Your task to perform on an android device: Clear the shopping cart on target. Add razer blade to the cart on target, then select checkout. Image 0: 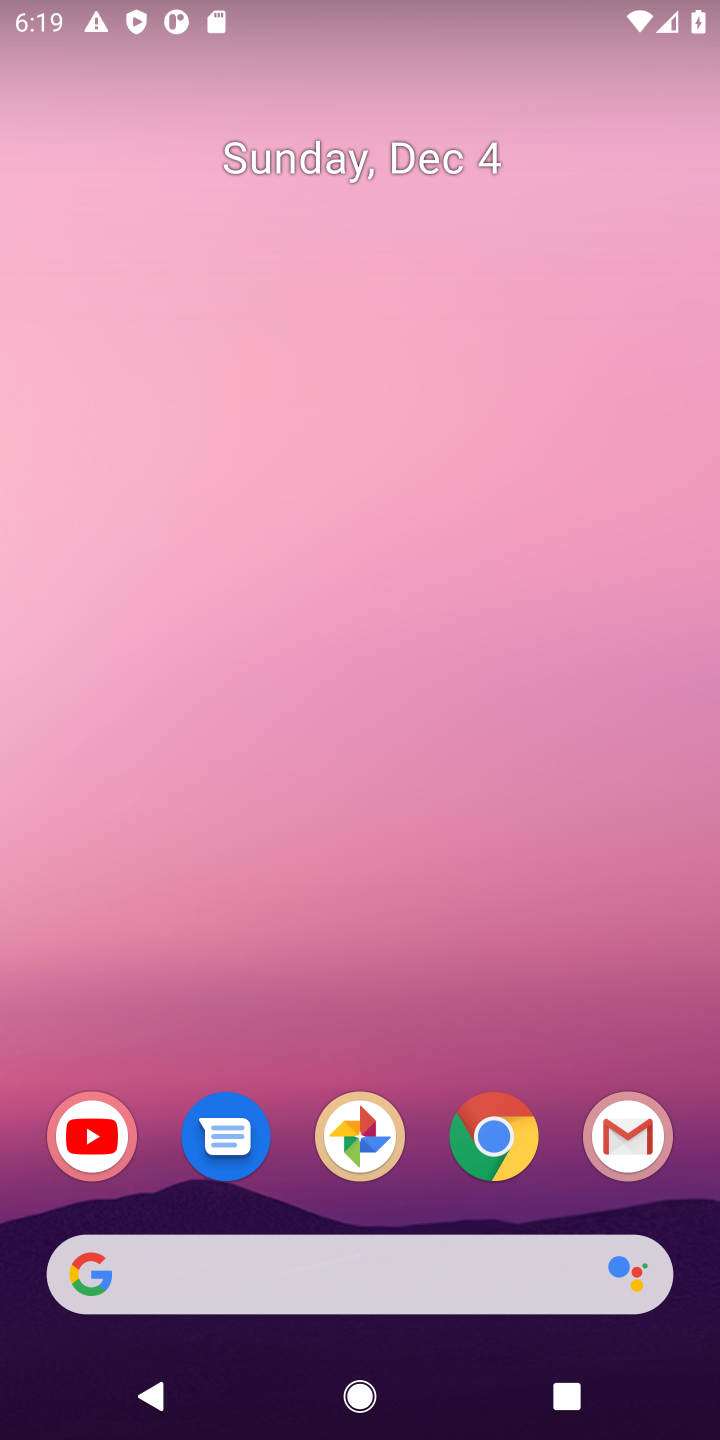
Step 0: click (508, 1145)
Your task to perform on an android device: Clear the shopping cart on target. Add razer blade to the cart on target, then select checkout. Image 1: 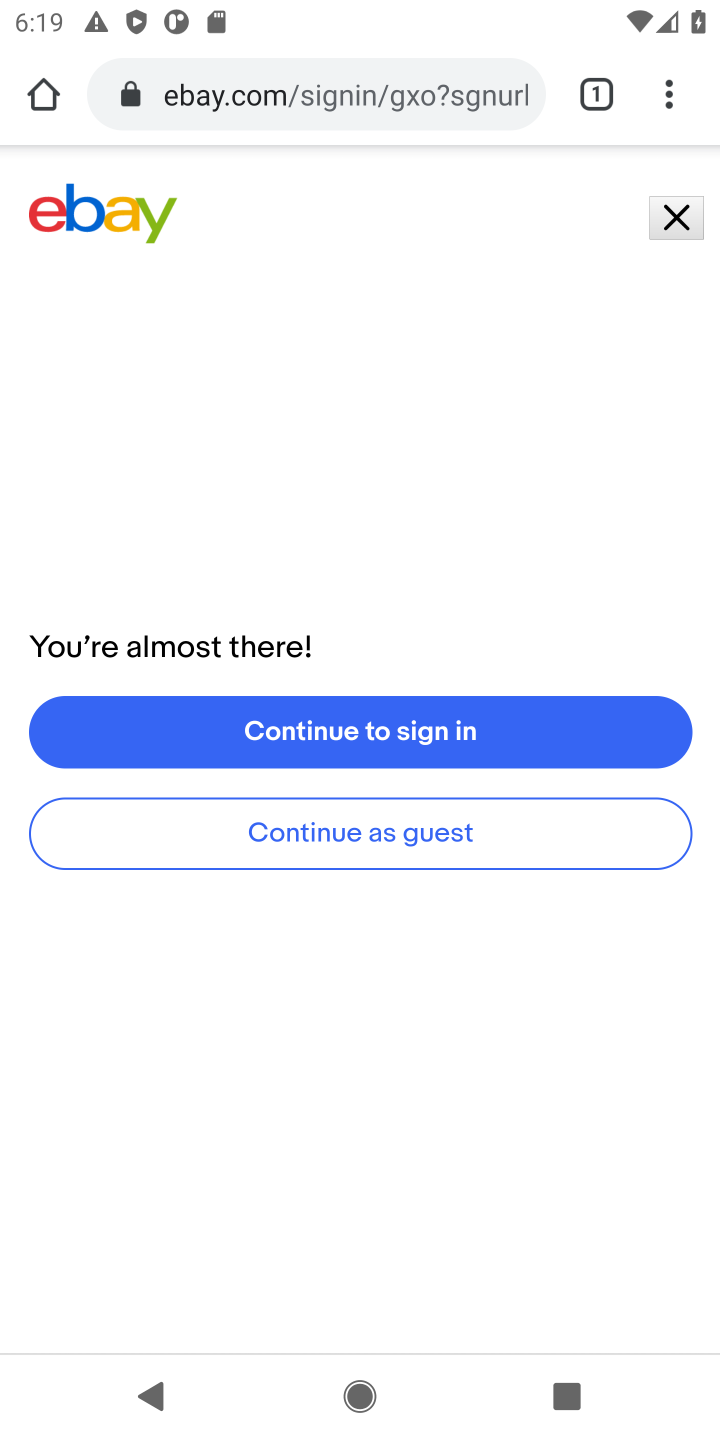
Step 1: click (305, 97)
Your task to perform on an android device: Clear the shopping cart on target. Add razer blade to the cart on target, then select checkout. Image 2: 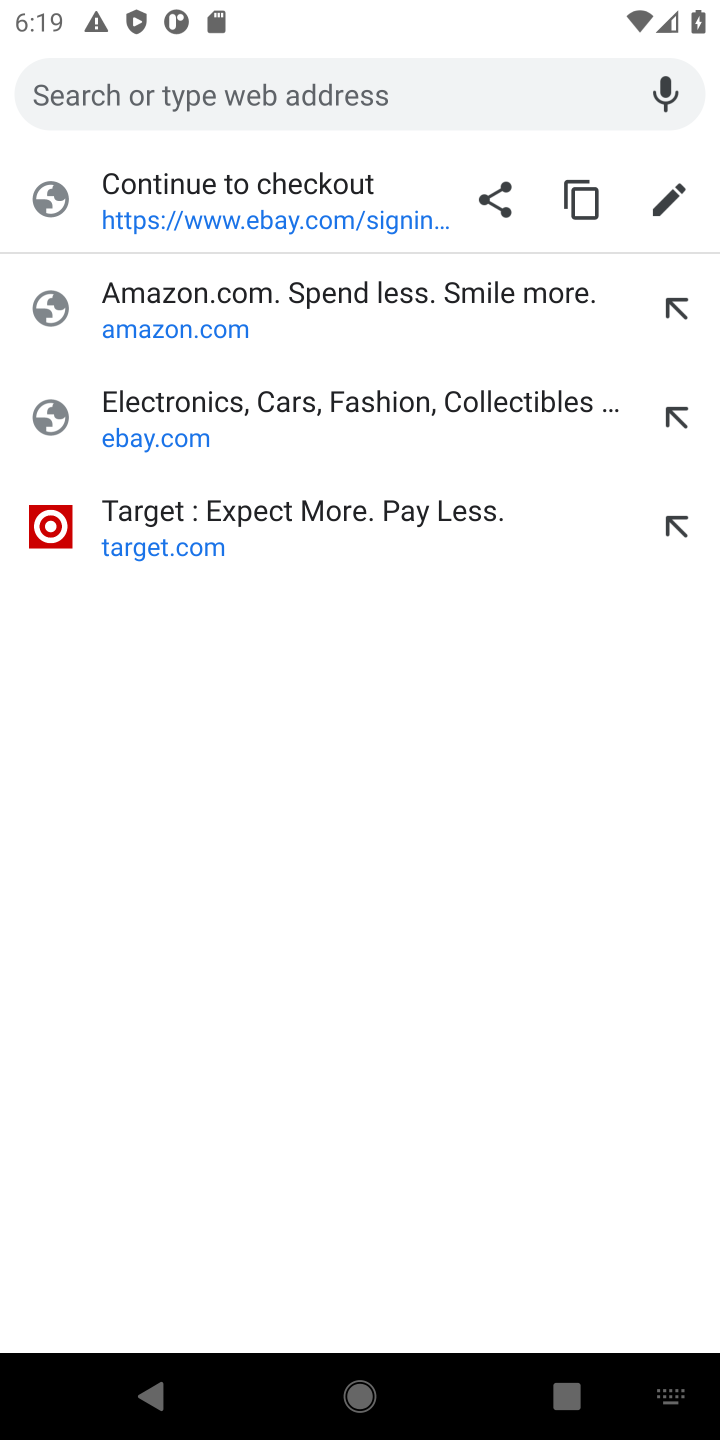
Step 2: click (139, 529)
Your task to perform on an android device: Clear the shopping cart on target. Add razer blade to the cart on target, then select checkout. Image 3: 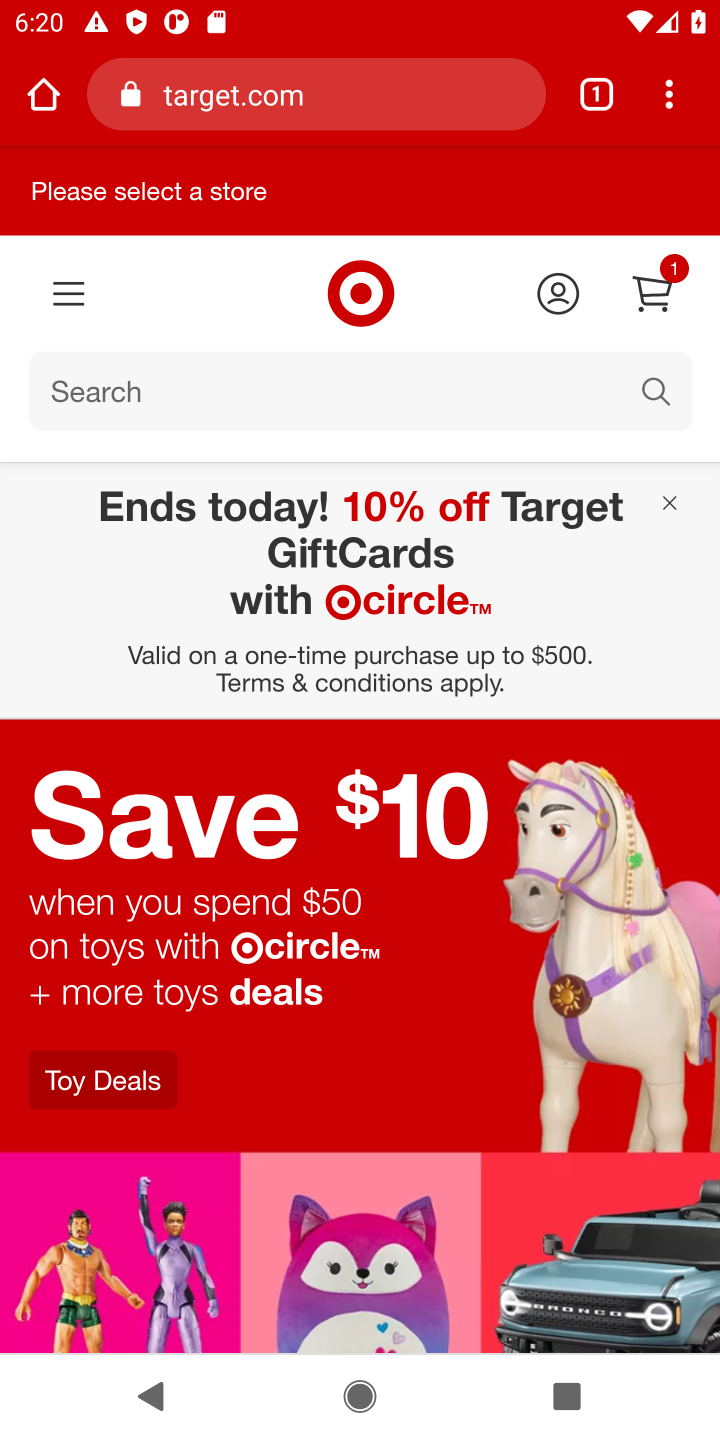
Step 3: click (654, 307)
Your task to perform on an android device: Clear the shopping cart on target. Add razer blade to the cart on target, then select checkout. Image 4: 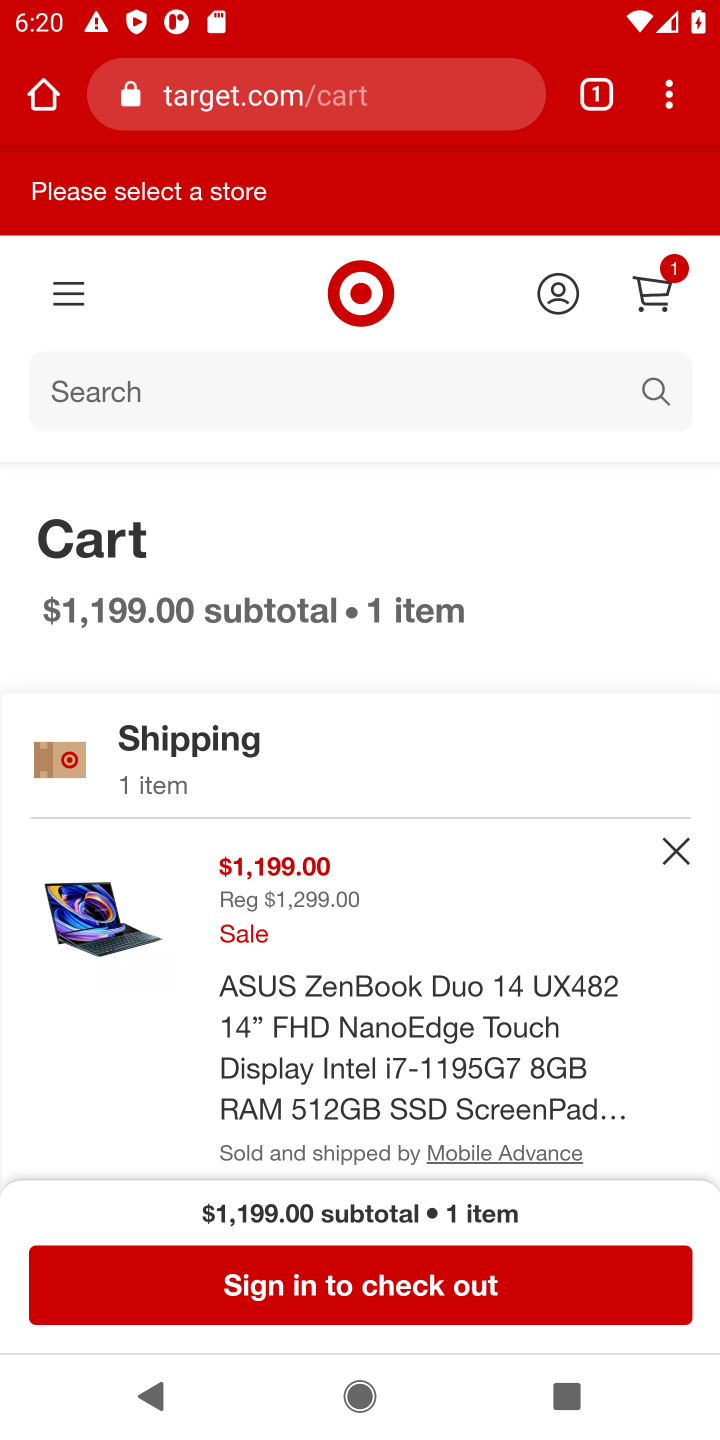
Step 4: click (676, 852)
Your task to perform on an android device: Clear the shopping cart on target. Add razer blade to the cart on target, then select checkout. Image 5: 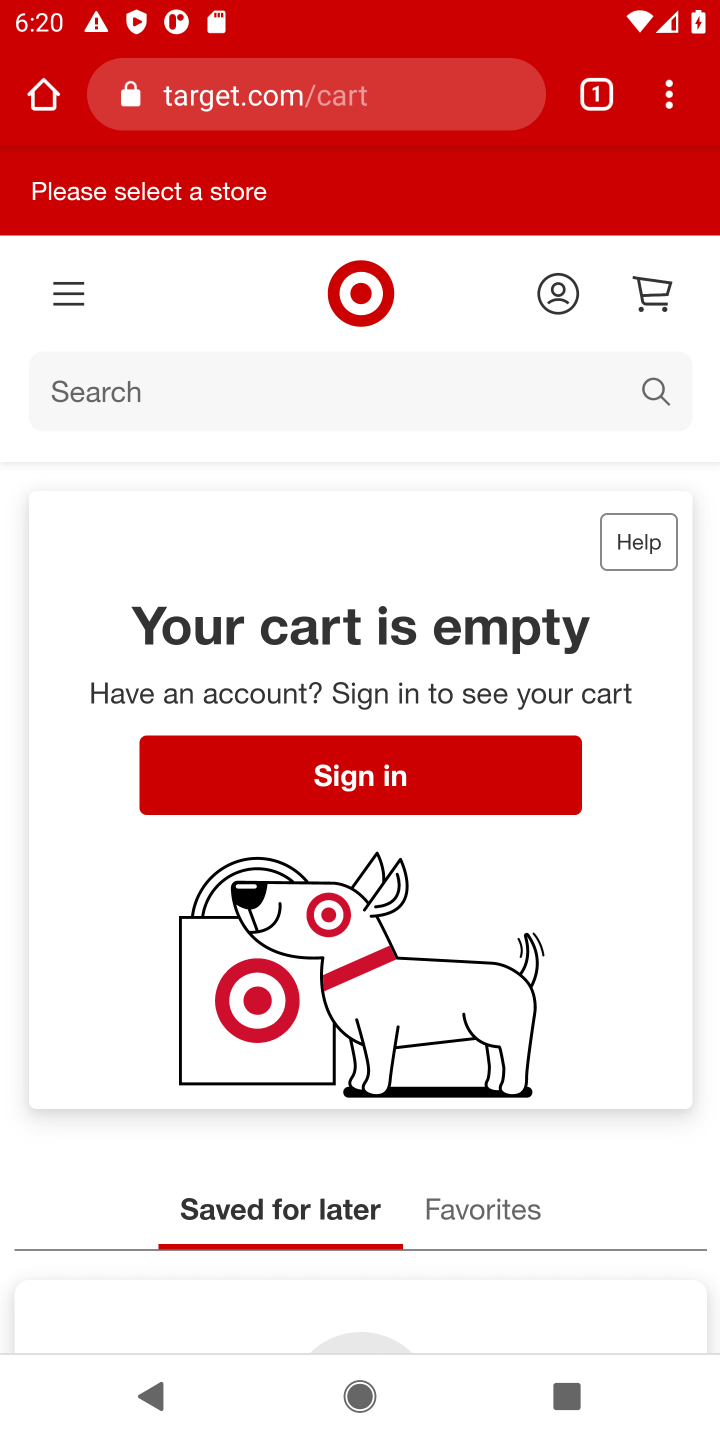
Step 5: click (69, 404)
Your task to perform on an android device: Clear the shopping cart on target. Add razer blade to the cart on target, then select checkout. Image 6: 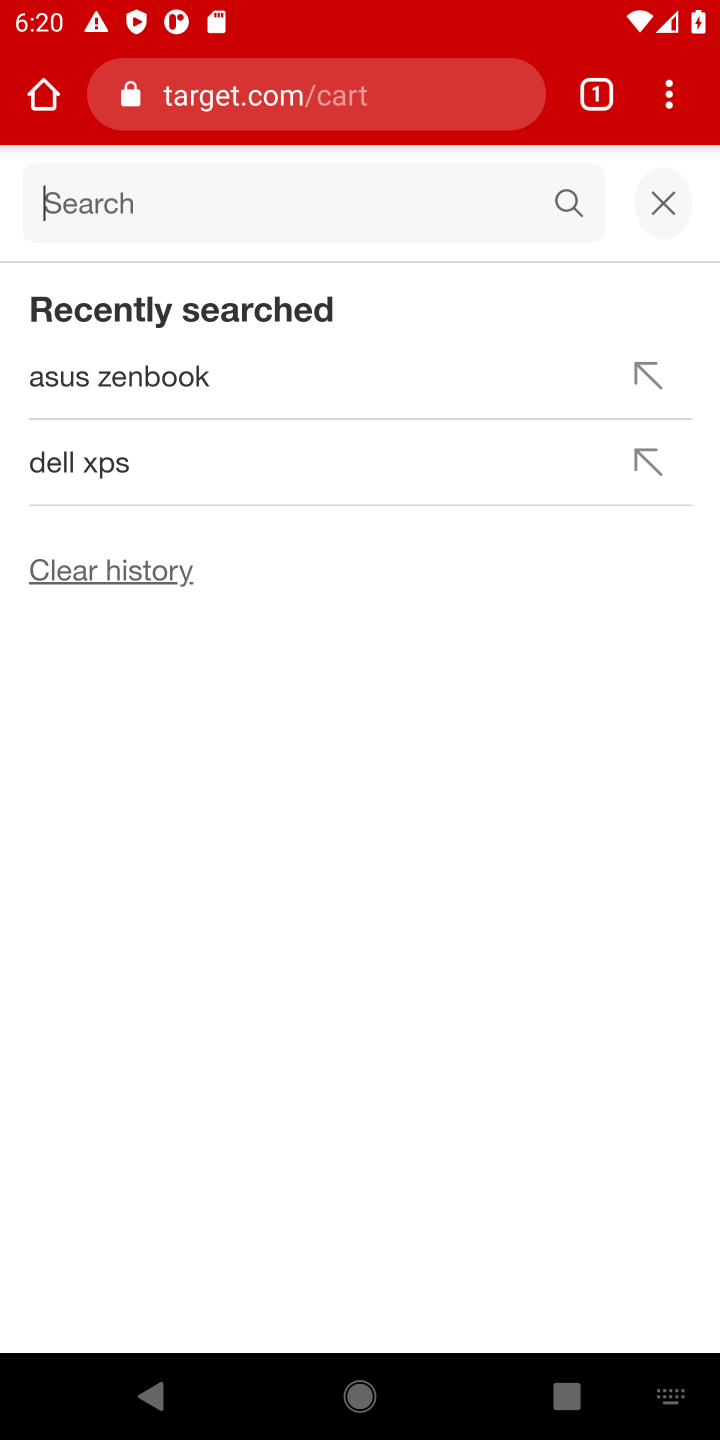
Step 6: type " razer blade "
Your task to perform on an android device: Clear the shopping cart on target. Add razer blade to the cart on target, then select checkout. Image 7: 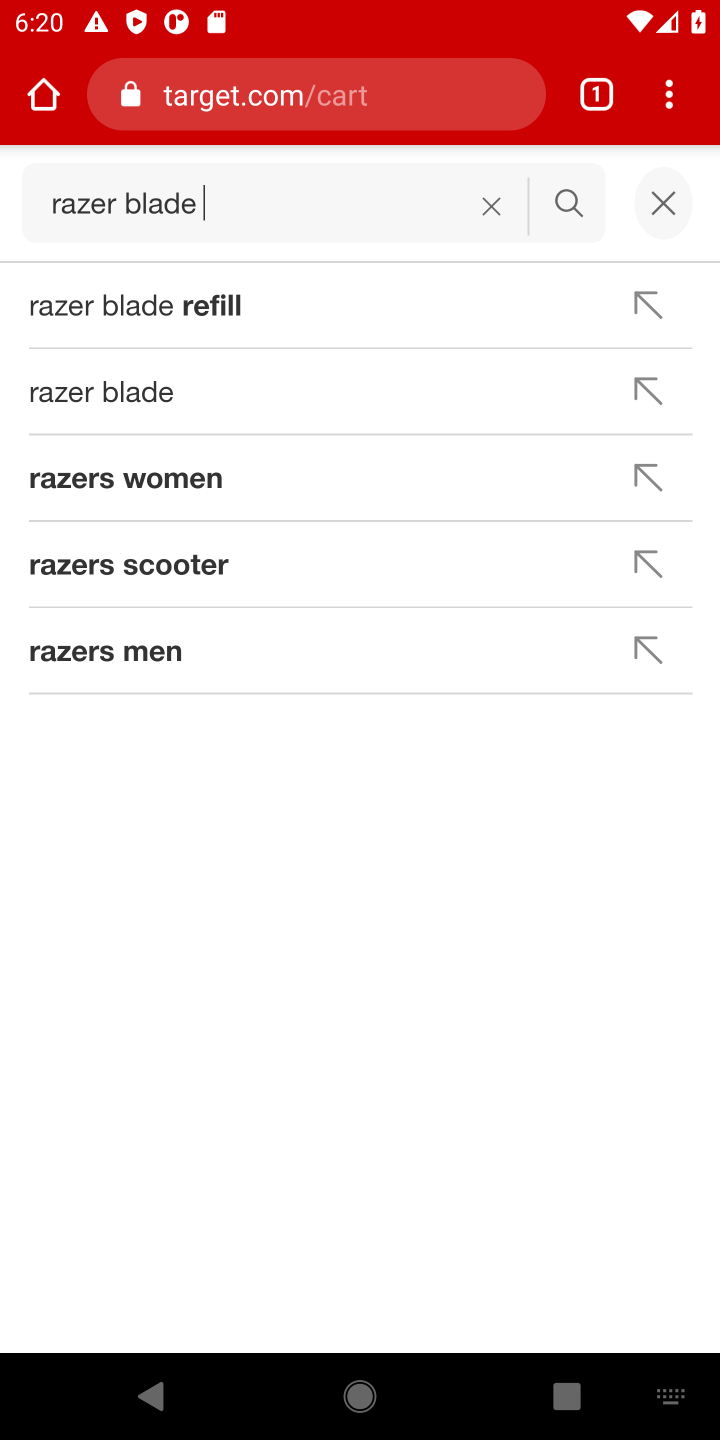
Step 7: click (574, 207)
Your task to perform on an android device: Clear the shopping cart on target. Add razer blade to the cart on target, then select checkout. Image 8: 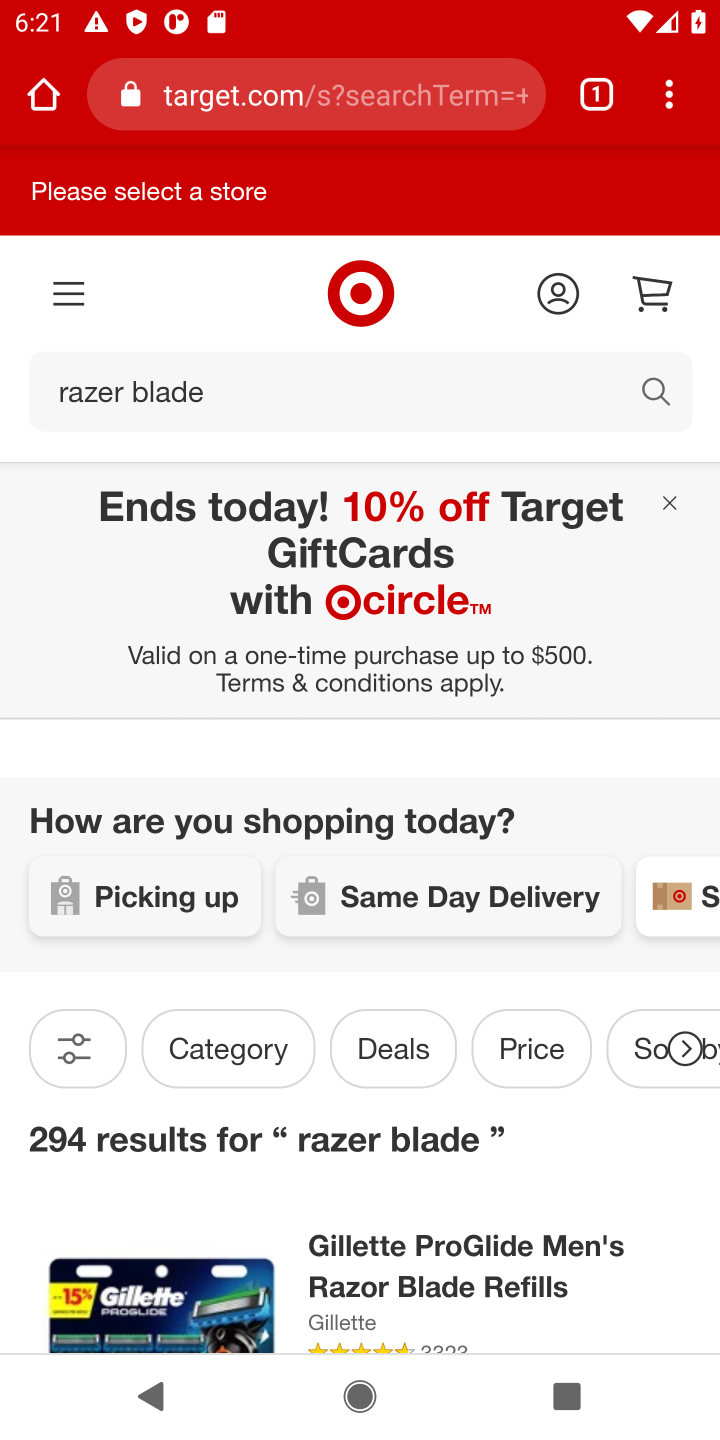
Step 8: task complete